Your task to perform on an android device: change text size in settings app Image 0: 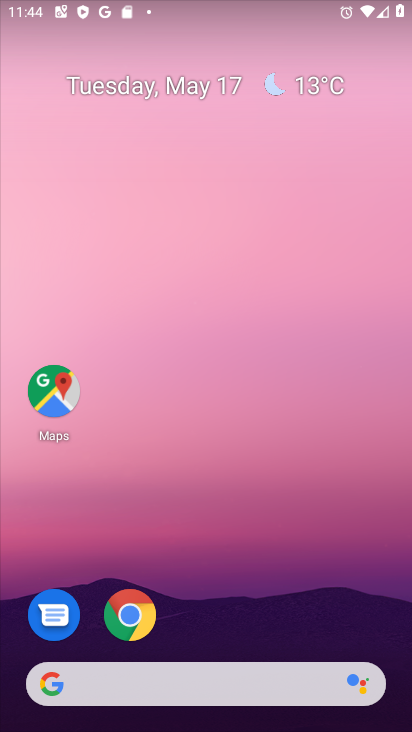
Step 0: drag from (266, 565) to (251, 205)
Your task to perform on an android device: change text size in settings app Image 1: 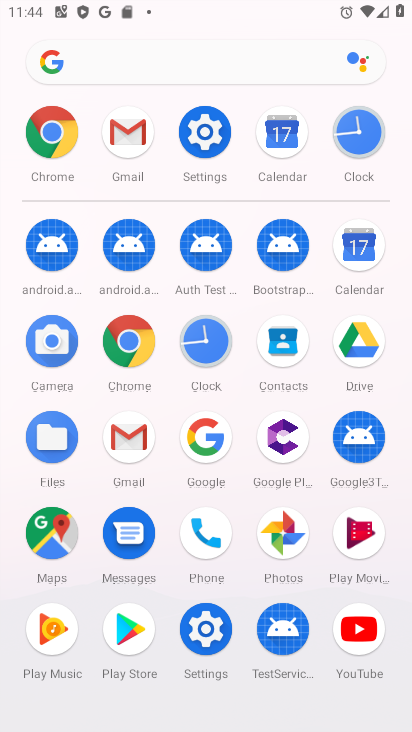
Step 1: click (220, 133)
Your task to perform on an android device: change text size in settings app Image 2: 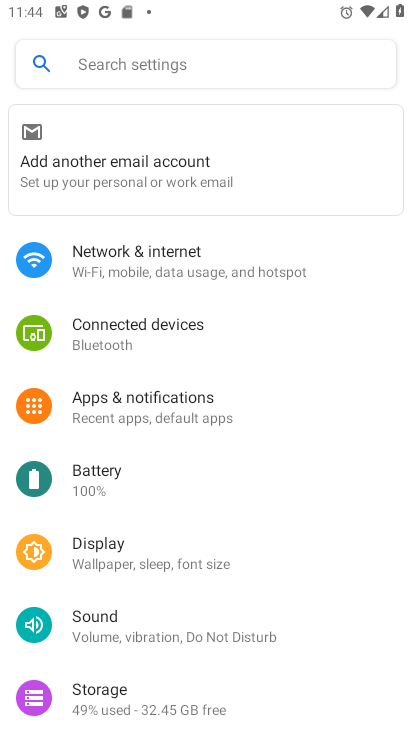
Step 2: drag from (270, 619) to (351, 237)
Your task to perform on an android device: change text size in settings app Image 3: 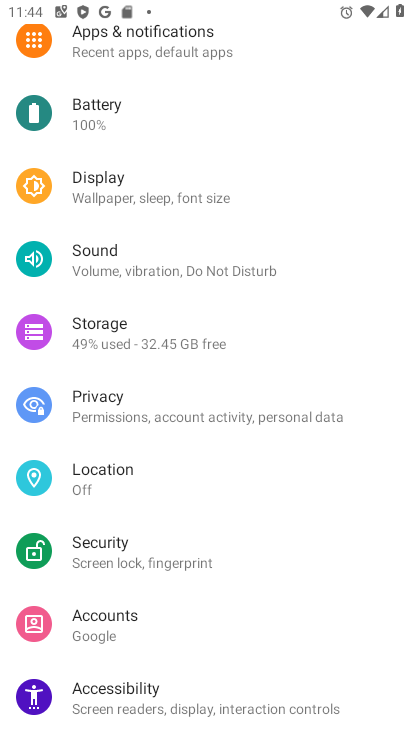
Step 3: click (276, 612)
Your task to perform on an android device: change text size in settings app Image 4: 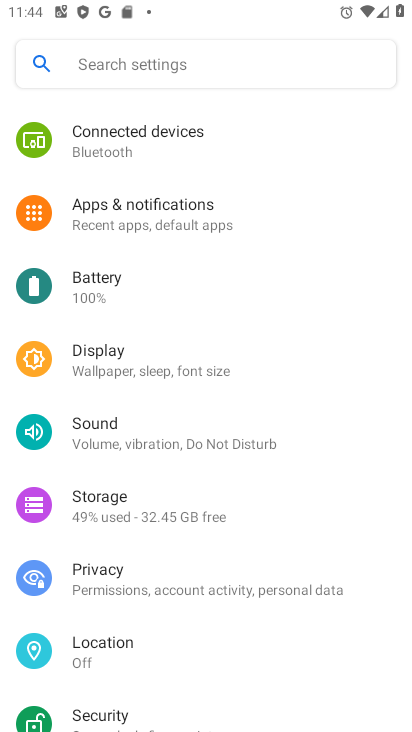
Step 4: click (179, 365)
Your task to perform on an android device: change text size in settings app Image 5: 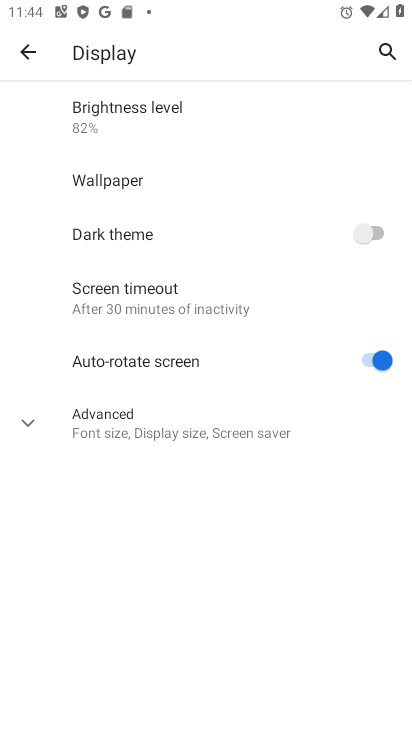
Step 5: click (160, 419)
Your task to perform on an android device: change text size in settings app Image 6: 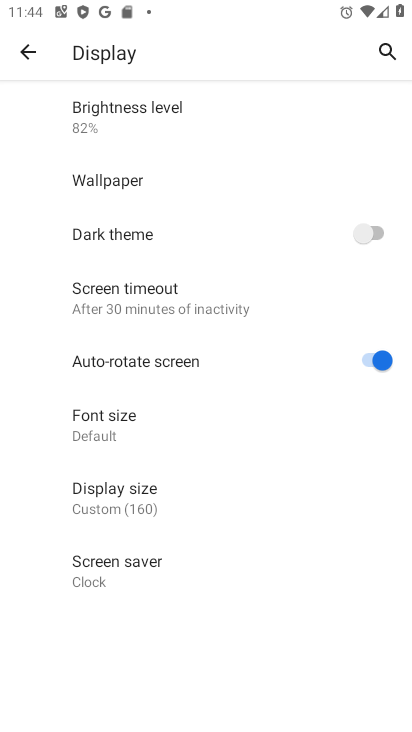
Step 6: click (103, 417)
Your task to perform on an android device: change text size in settings app Image 7: 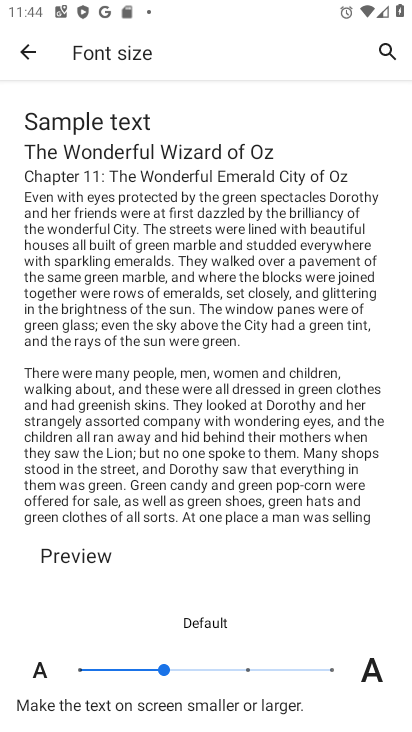
Step 7: click (87, 665)
Your task to perform on an android device: change text size in settings app Image 8: 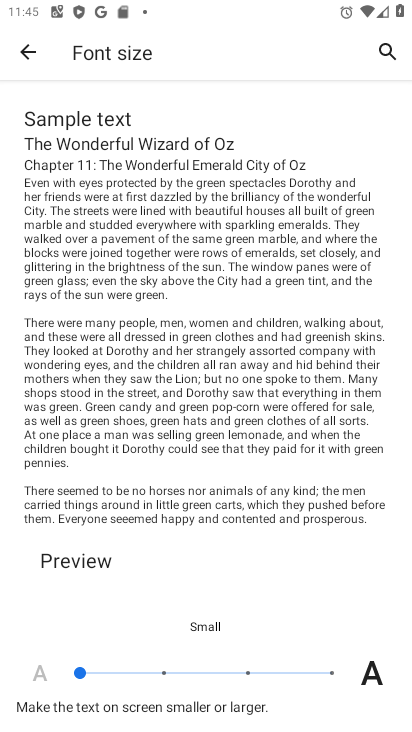
Step 8: task complete